Your task to perform on an android device: Google the capital of Colombia Image 0: 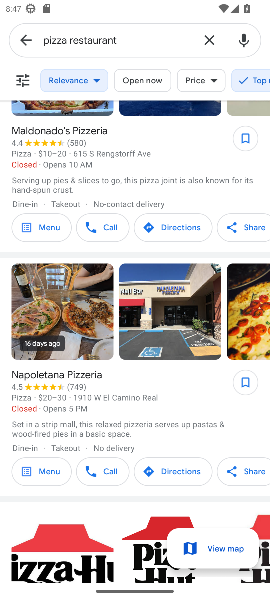
Step 0: press home button
Your task to perform on an android device: Google the capital of Colombia Image 1: 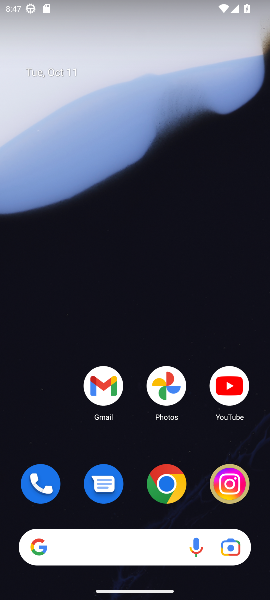
Step 1: click (167, 484)
Your task to perform on an android device: Google the capital of Colombia Image 2: 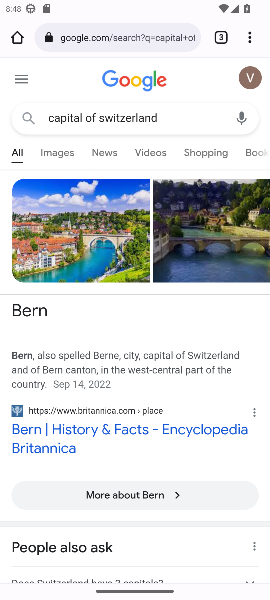
Step 2: click (175, 121)
Your task to perform on an android device: Google the capital of Colombia Image 3: 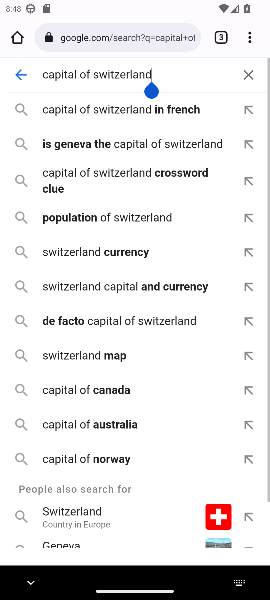
Step 3: click (245, 73)
Your task to perform on an android device: Google the capital of Colombia Image 4: 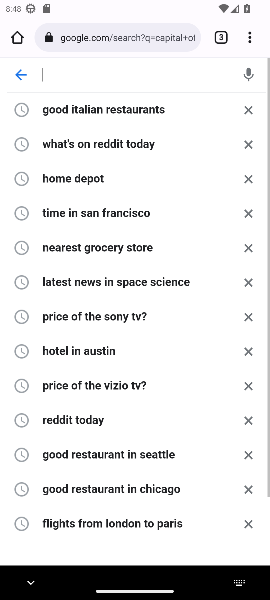
Step 4: type "capital of Colombia"
Your task to perform on an android device: Google the capital of Colombia Image 5: 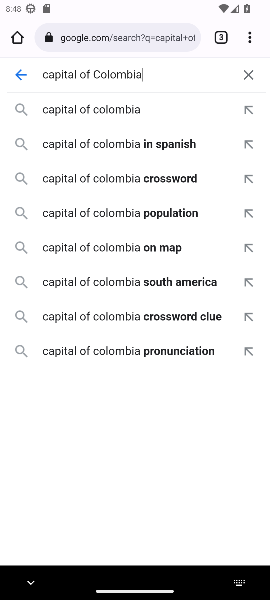
Step 5: click (79, 113)
Your task to perform on an android device: Google the capital of Colombia Image 6: 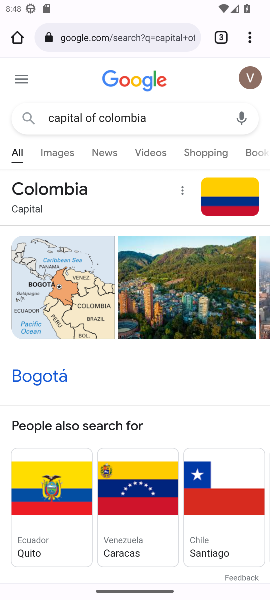
Step 6: task complete